Your task to perform on an android device: Open the phone app and click the voicemail tab. Image 0: 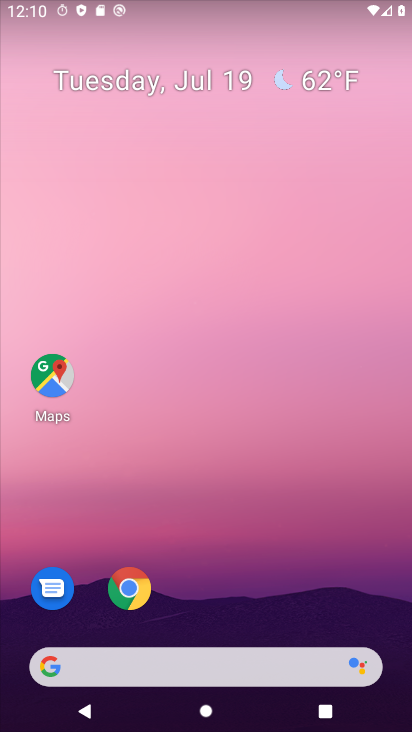
Step 0: drag from (246, 546) to (234, 142)
Your task to perform on an android device: Open the phone app and click the voicemail tab. Image 1: 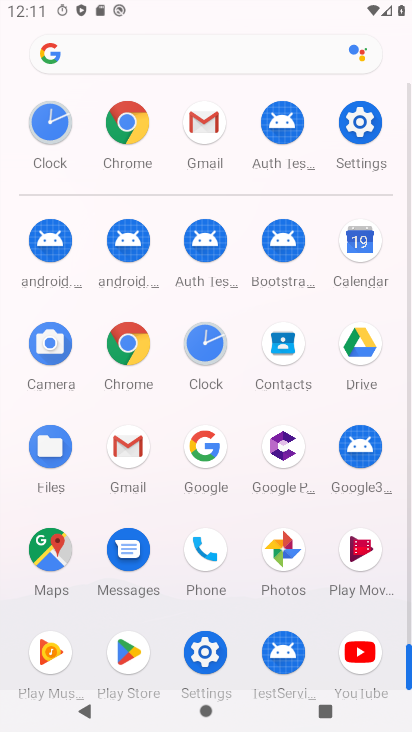
Step 1: click (202, 554)
Your task to perform on an android device: Open the phone app and click the voicemail tab. Image 2: 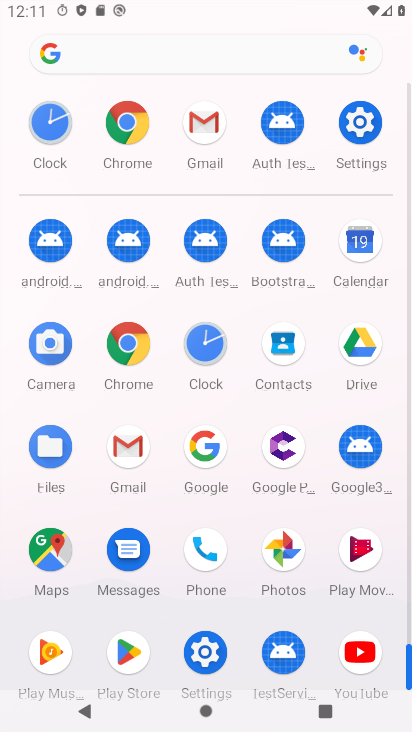
Step 2: click (203, 555)
Your task to perform on an android device: Open the phone app and click the voicemail tab. Image 3: 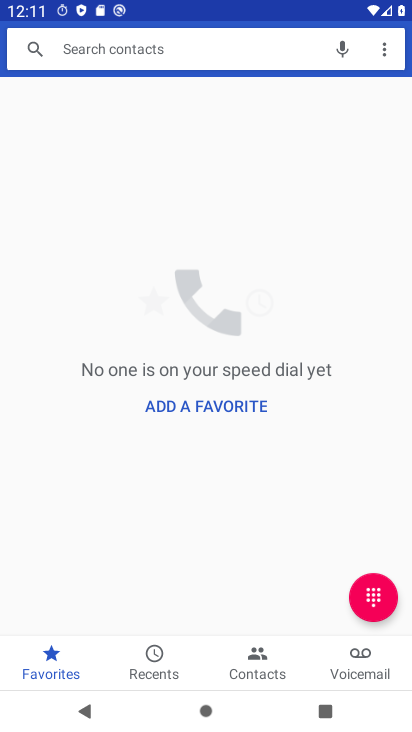
Step 3: click (205, 554)
Your task to perform on an android device: Open the phone app and click the voicemail tab. Image 4: 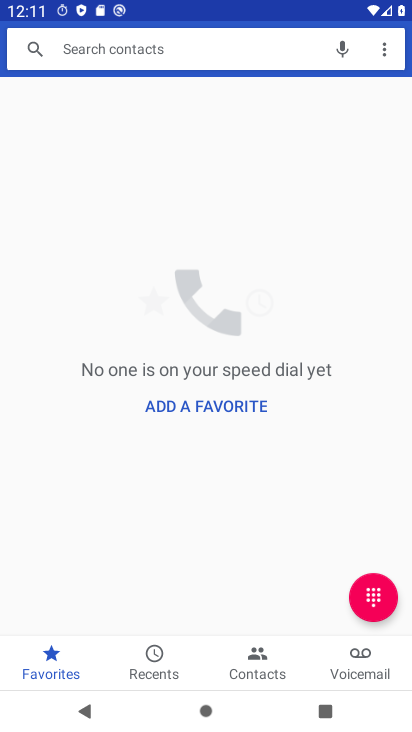
Step 4: click (205, 554)
Your task to perform on an android device: Open the phone app and click the voicemail tab. Image 5: 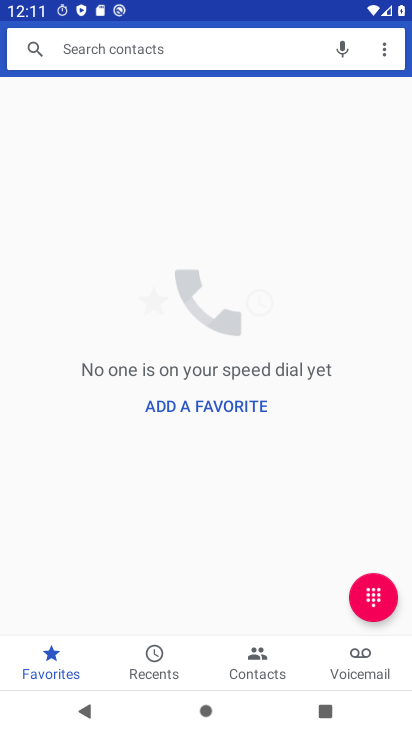
Step 5: click (207, 554)
Your task to perform on an android device: Open the phone app and click the voicemail tab. Image 6: 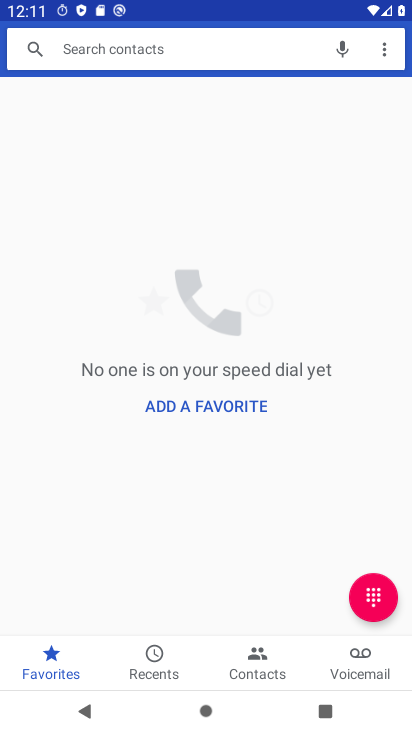
Step 6: click (208, 553)
Your task to perform on an android device: Open the phone app and click the voicemail tab. Image 7: 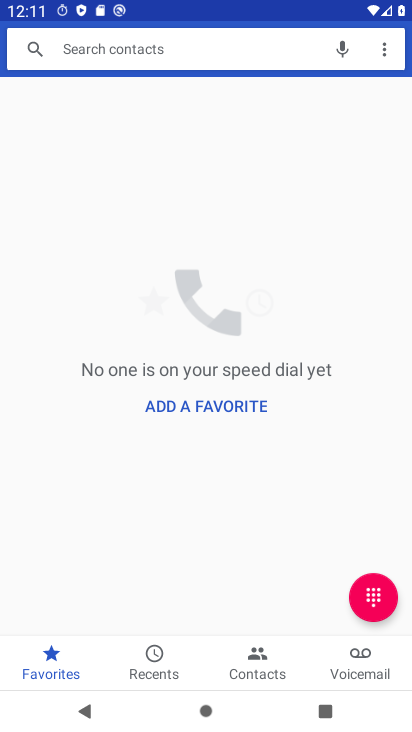
Step 7: click (208, 553)
Your task to perform on an android device: Open the phone app and click the voicemail tab. Image 8: 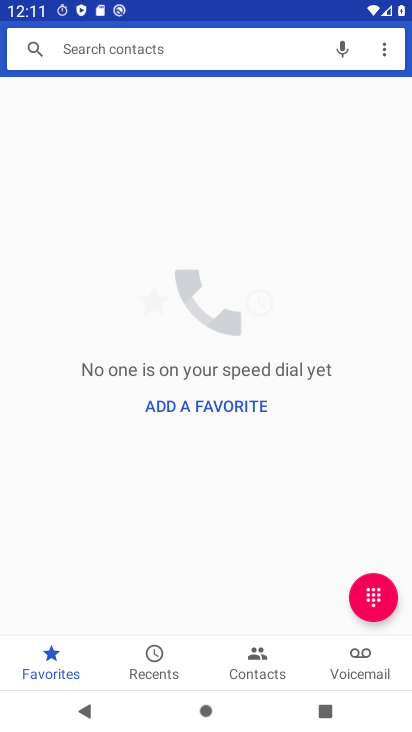
Step 8: click (338, 682)
Your task to perform on an android device: Open the phone app and click the voicemail tab. Image 9: 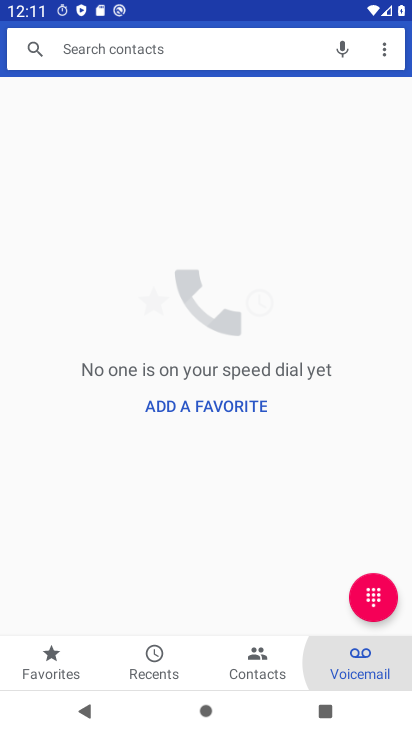
Step 9: click (346, 678)
Your task to perform on an android device: Open the phone app and click the voicemail tab. Image 10: 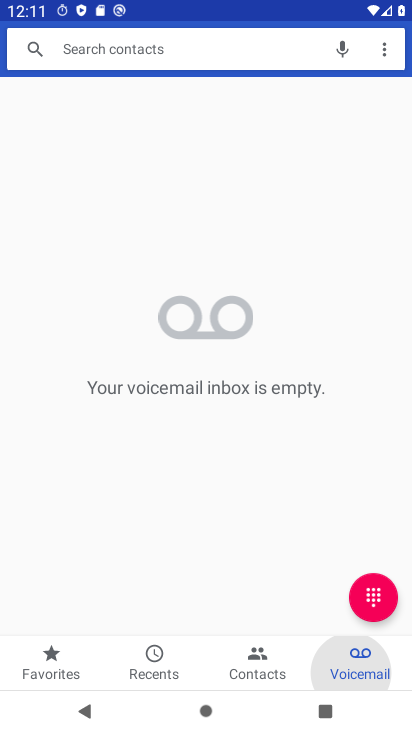
Step 10: click (346, 674)
Your task to perform on an android device: Open the phone app and click the voicemail tab. Image 11: 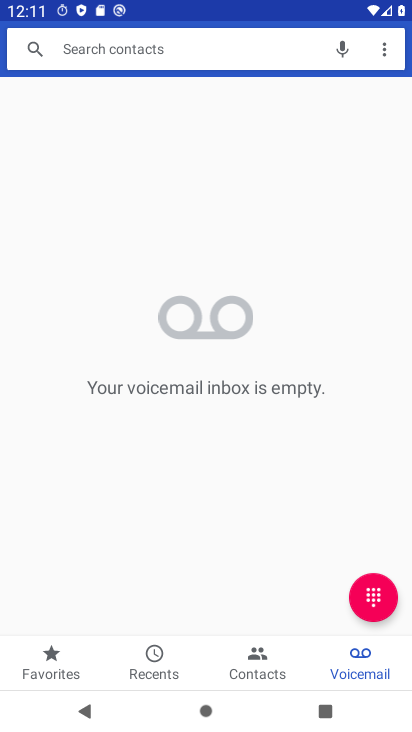
Step 11: click (344, 678)
Your task to perform on an android device: Open the phone app and click the voicemail tab. Image 12: 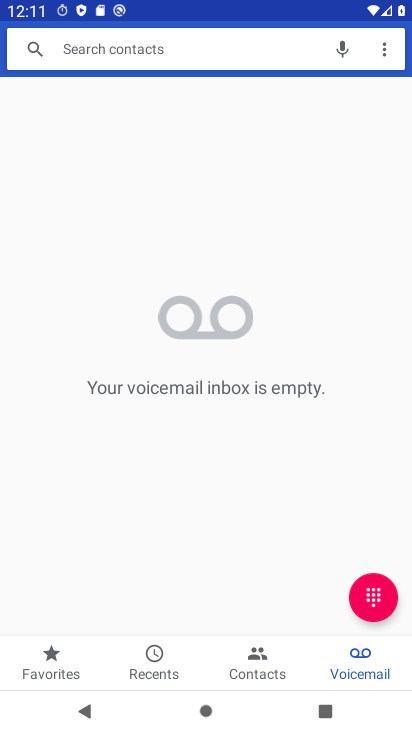
Step 12: click (344, 685)
Your task to perform on an android device: Open the phone app and click the voicemail tab. Image 13: 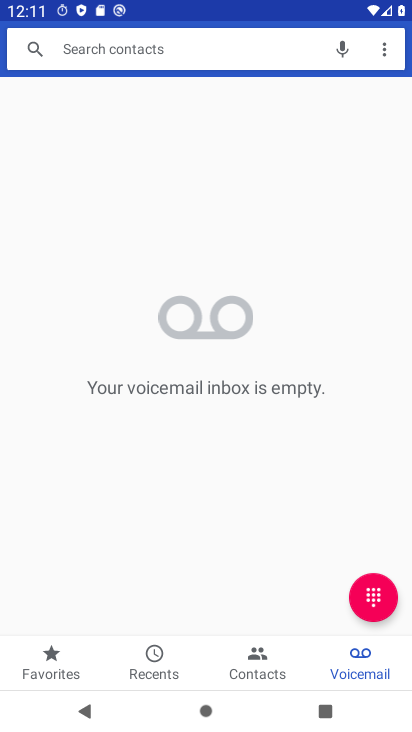
Step 13: click (375, 678)
Your task to perform on an android device: Open the phone app and click the voicemail tab. Image 14: 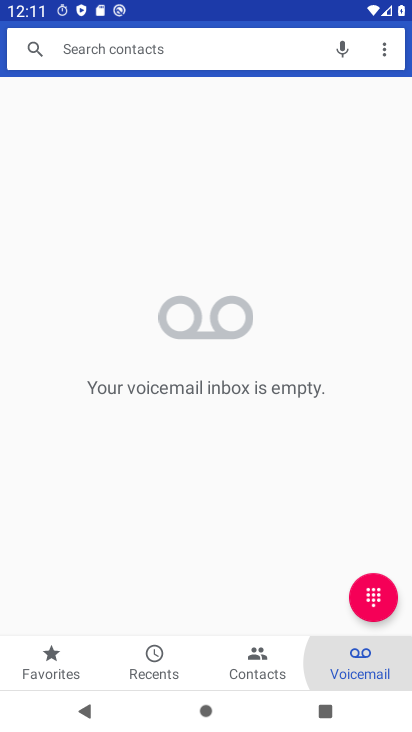
Step 14: click (376, 677)
Your task to perform on an android device: Open the phone app and click the voicemail tab. Image 15: 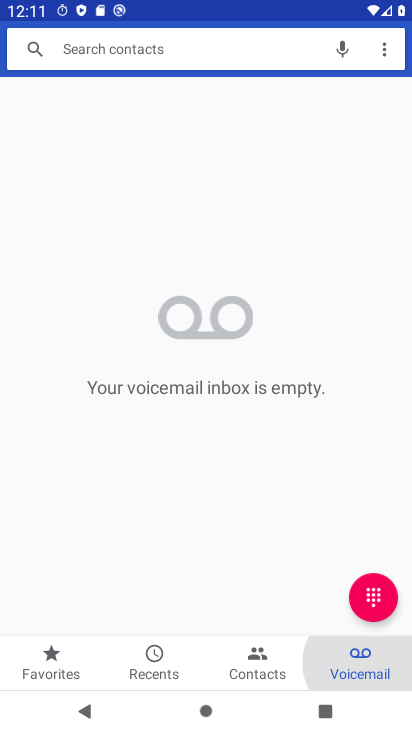
Step 15: click (376, 677)
Your task to perform on an android device: Open the phone app and click the voicemail tab. Image 16: 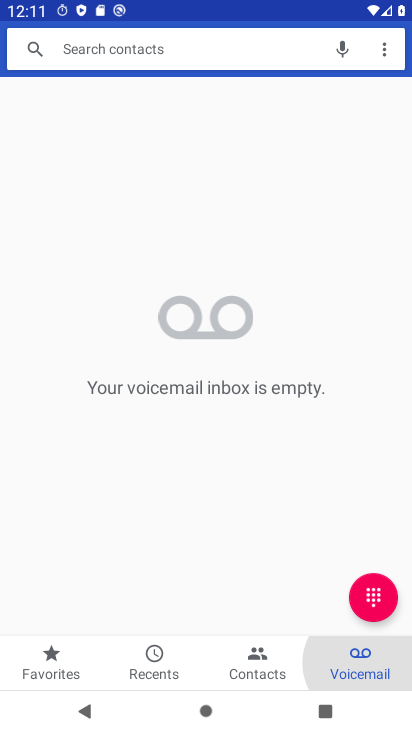
Step 16: click (373, 658)
Your task to perform on an android device: Open the phone app and click the voicemail tab. Image 17: 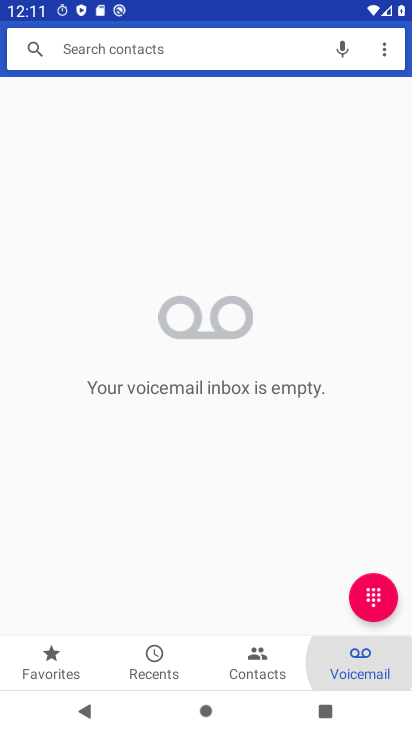
Step 17: click (372, 658)
Your task to perform on an android device: Open the phone app and click the voicemail tab. Image 18: 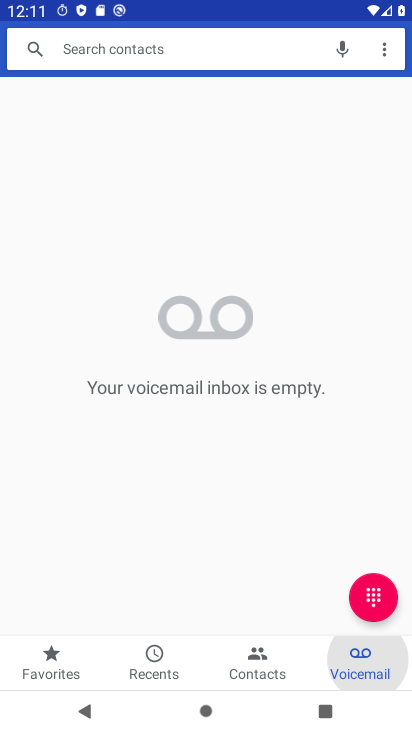
Step 18: click (370, 658)
Your task to perform on an android device: Open the phone app and click the voicemail tab. Image 19: 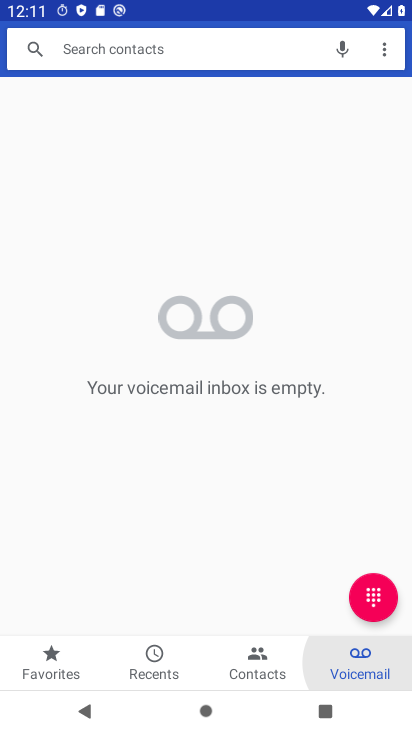
Step 19: click (366, 654)
Your task to perform on an android device: Open the phone app and click the voicemail tab. Image 20: 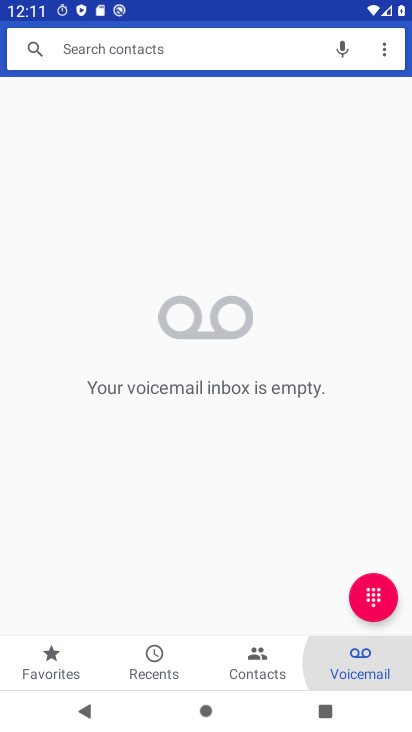
Step 20: click (366, 654)
Your task to perform on an android device: Open the phone app and click the voicemail tab. Image 21: 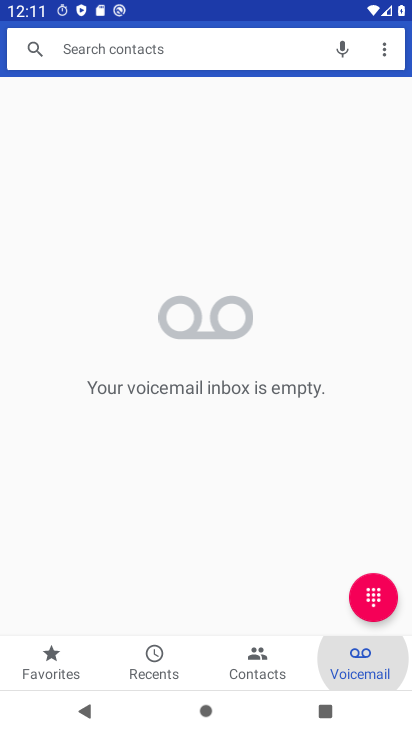
Step 21: click (365, 654)
Your task to perform on an android device: Open the phone app and click the voicemail tab. Image 22: 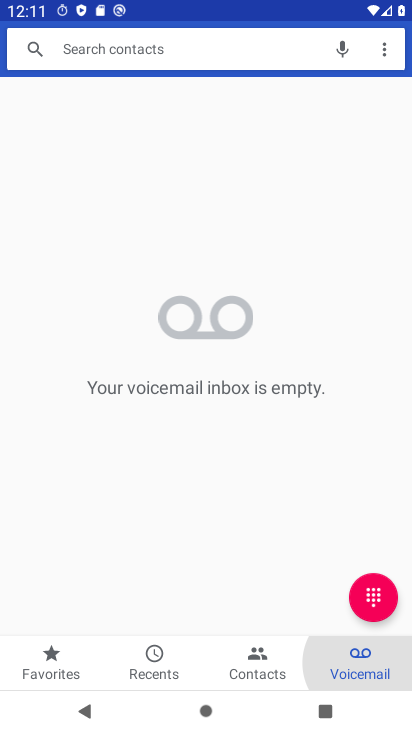
Step 22: click (360, 655)
Your task to perform on an android device: Open the phone app and click the voicemail tab. Image 23: 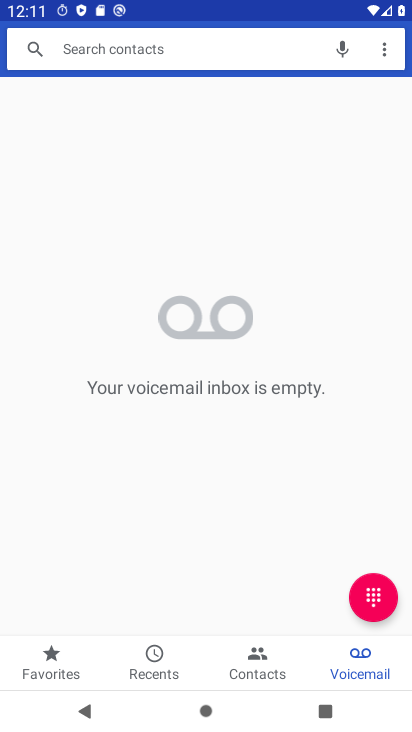
Step 23: task complete